Your task to perform on an android device: delete the emails in spam in the gmail app Image 0: 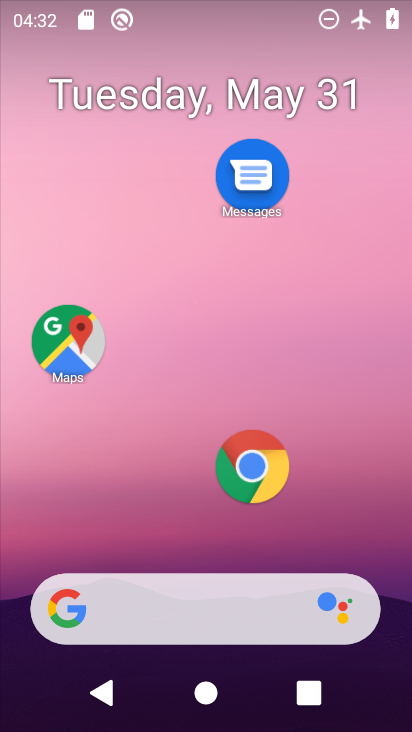
Step 0: drag from (130, 519) to (165, 115)
Your task to perform on an android device: delete the emails in spam in the gmail app Image 1: 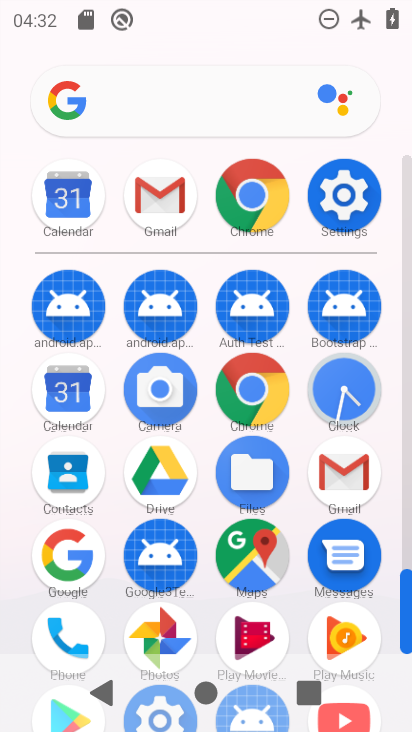
Step 1: click (172, 198)
Your task to perform on an android device: delete the emails in spam in the gmail app Image 2: 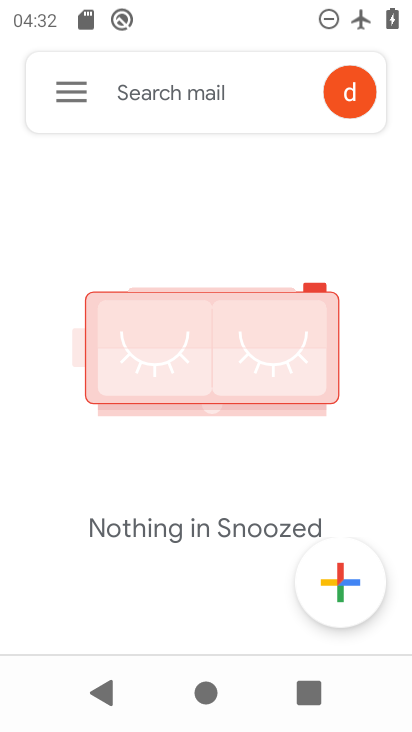
Step 2: click (58, 92)
Your task to perform on an android device: delete the emails in spam in the gmail app Image 3: 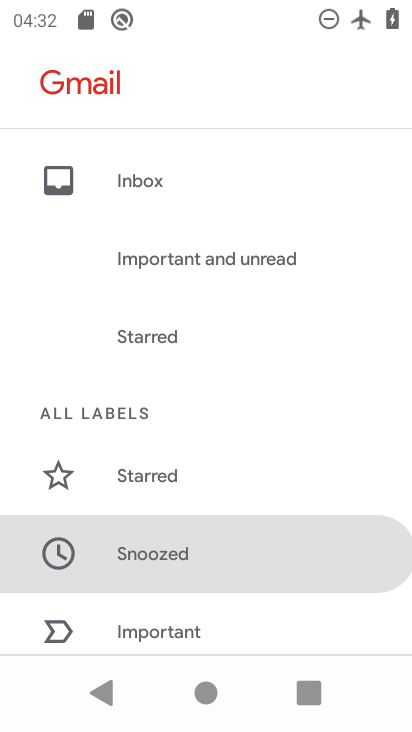
Step 3: drag from (164, 610) to (212, 106)
Your task to perform on an android device: delete the emails in spam in the gmail app Image 4: 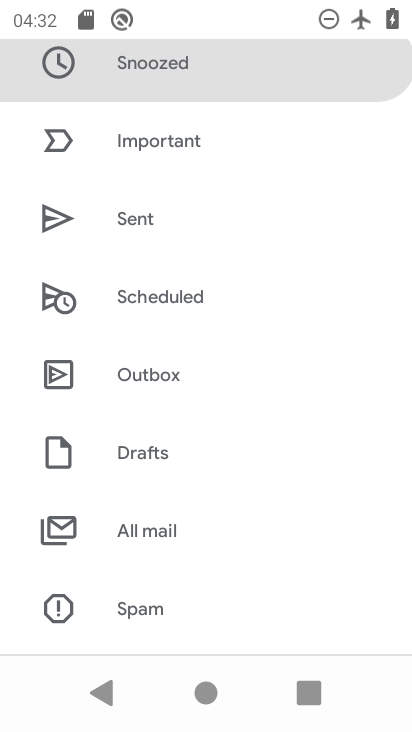
Step 4: click (135, 612)
Your task to perform on an android device: delete the emails in spam in the gmail app Image 5: 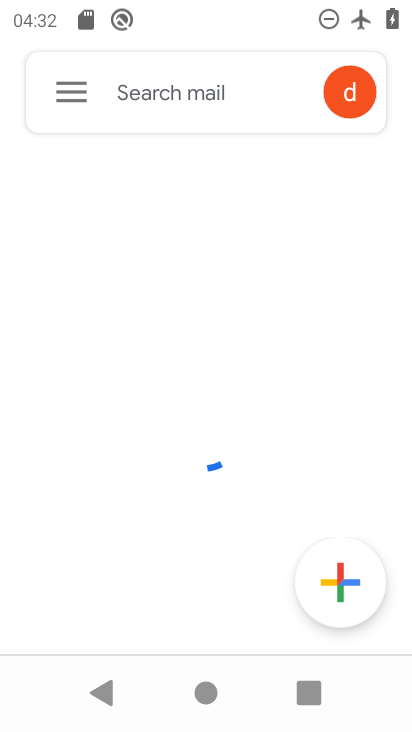
Step 5: task complete